Your task to perform on an android device: toggle translation in the chrome app Image 0: 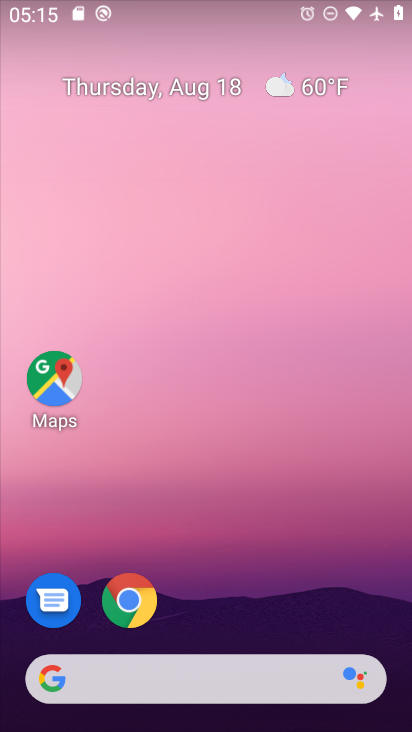
Step 0: press home button
Your task to perform on an android device: toggle translation in the chrome app Image 1: 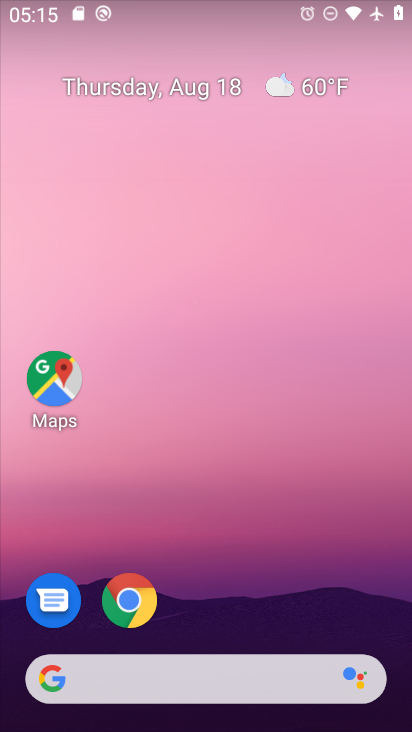
Step 1: click (122, 607)
Your task to perform on an android device: toggle translation in the chrome app Image 2: 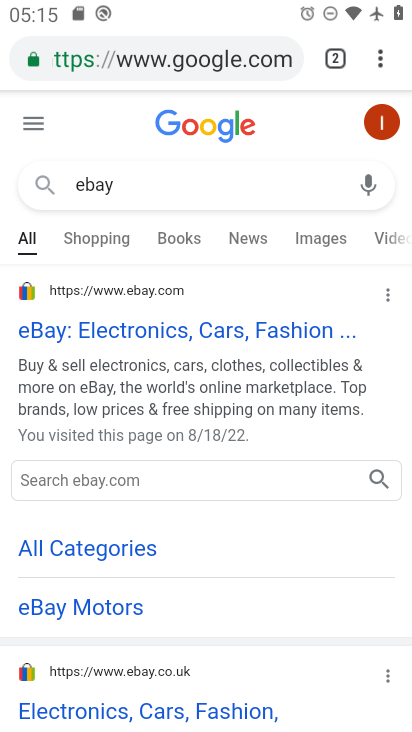
Step 2: drag from (386, 64) to (187, 637)
Your task to perform on an android device: toggle translation in the chrome app Image 3: 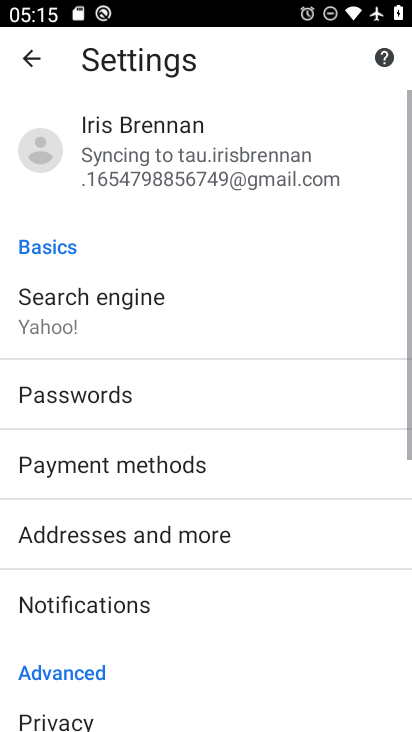
Step 3: drag from (228, 663) to (257, 274)
Your task to perform on an android device: toggle translation in the chrome app Image 4: 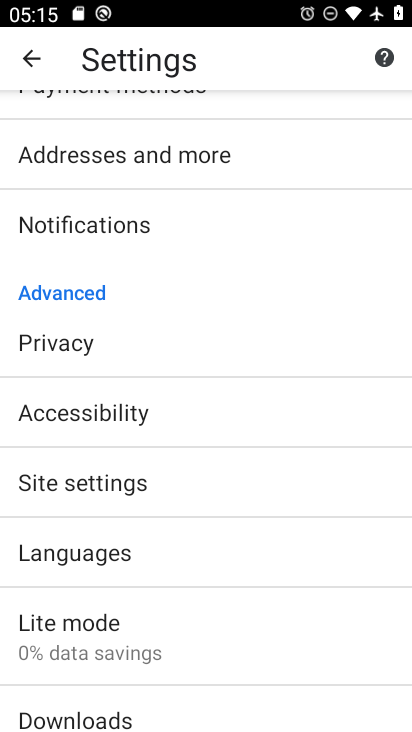
Step 4: click (63, 558)
Your task to perform on an android device: toggle translation in the chrome app Image 5: 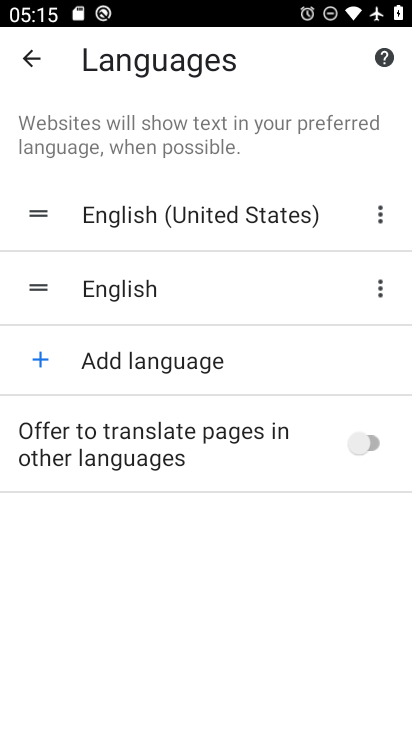
Step 5: click (356, 442)
Your task to perform on an android device: toggle translation in the chrome app Image 6: 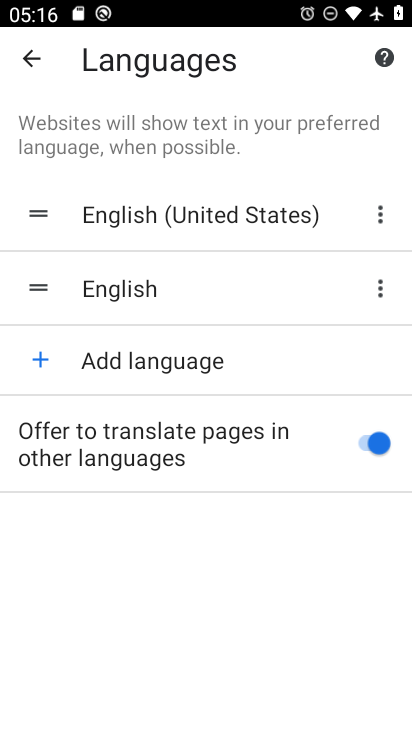
Step 6: task complete